Your task to perform on an android device: Clear the shopping cart on bestbuy.com. Image 0: 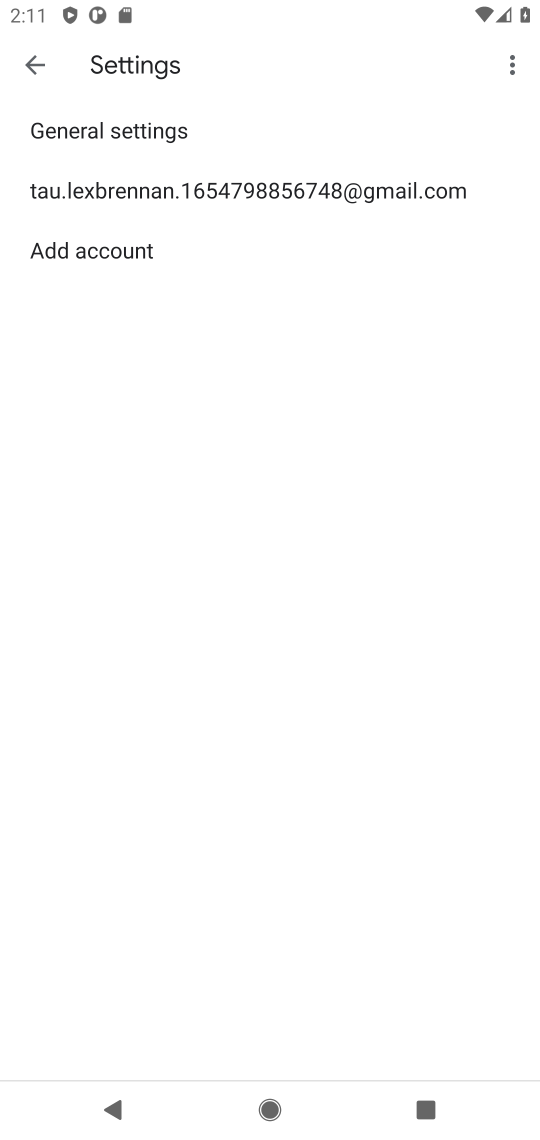
Step 0: press home button
Your task to perform on an android device: Clear the shopping cart on bestbuy.com. Image 1: 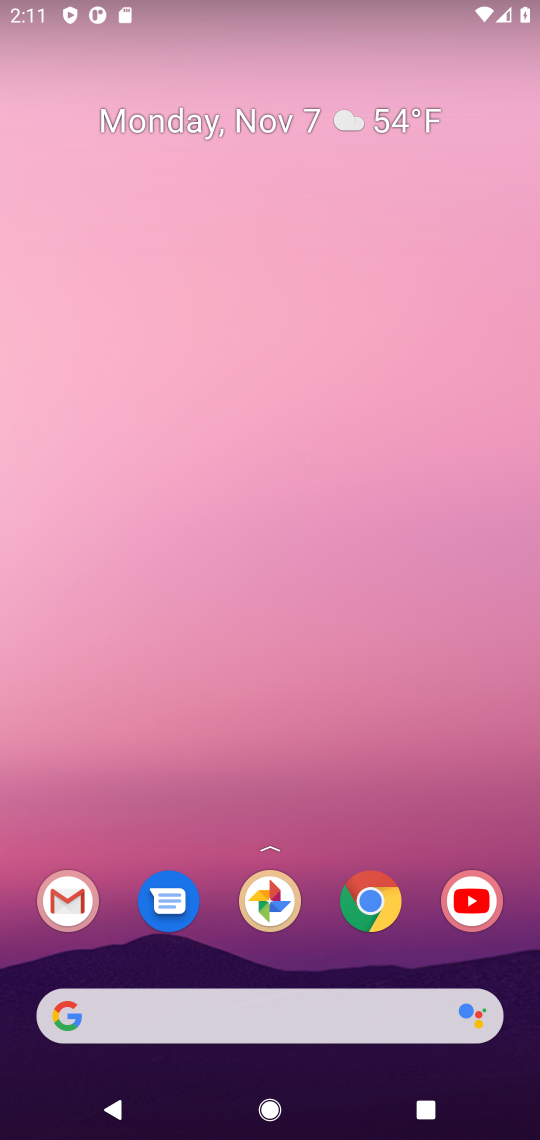
Step 1: click (364, 905)
Your task to perform on an android device: Clear the shopping cart on bestbuy.com. Image 2: 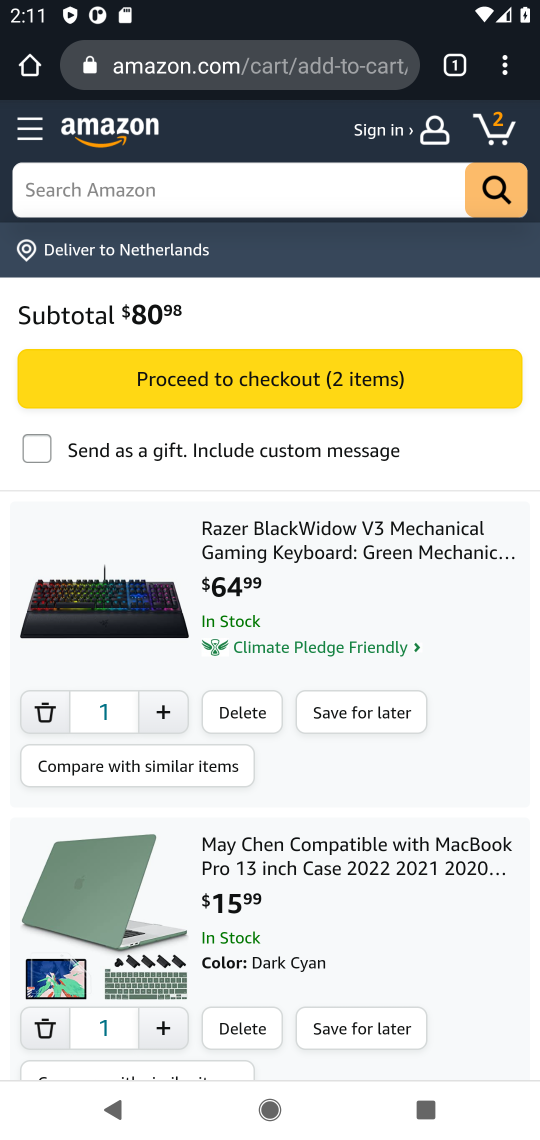
Step 2: click (243, 77)
Your task to perform on an android device: Clear the shopping cart on bestbuy.com. Image 3: 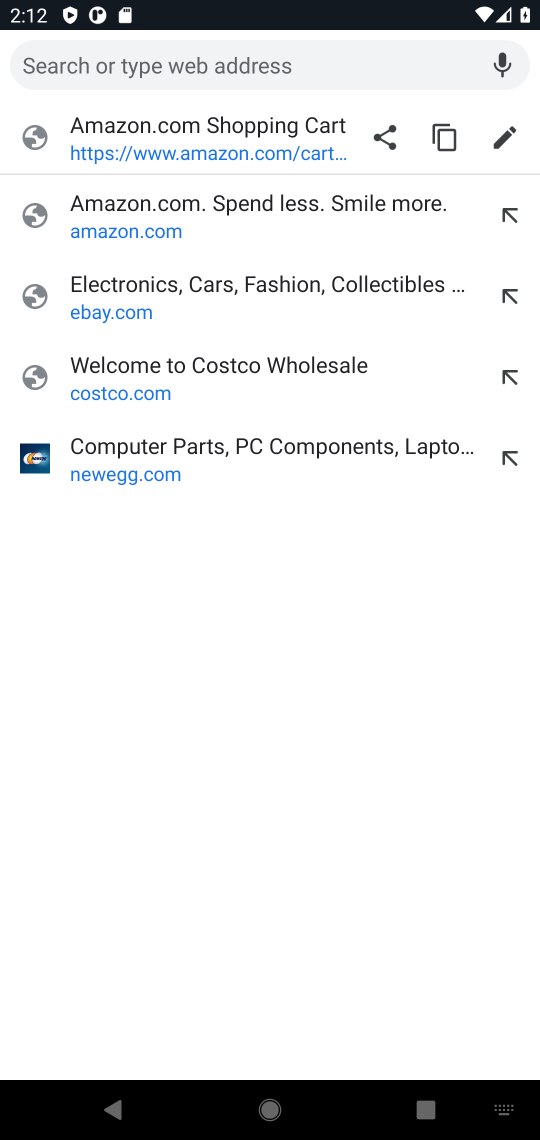
Step 3: type "bestbuy.com"
Your task to perform on an android device: Clear the shopping cart on bestbuy.com. Image 4: 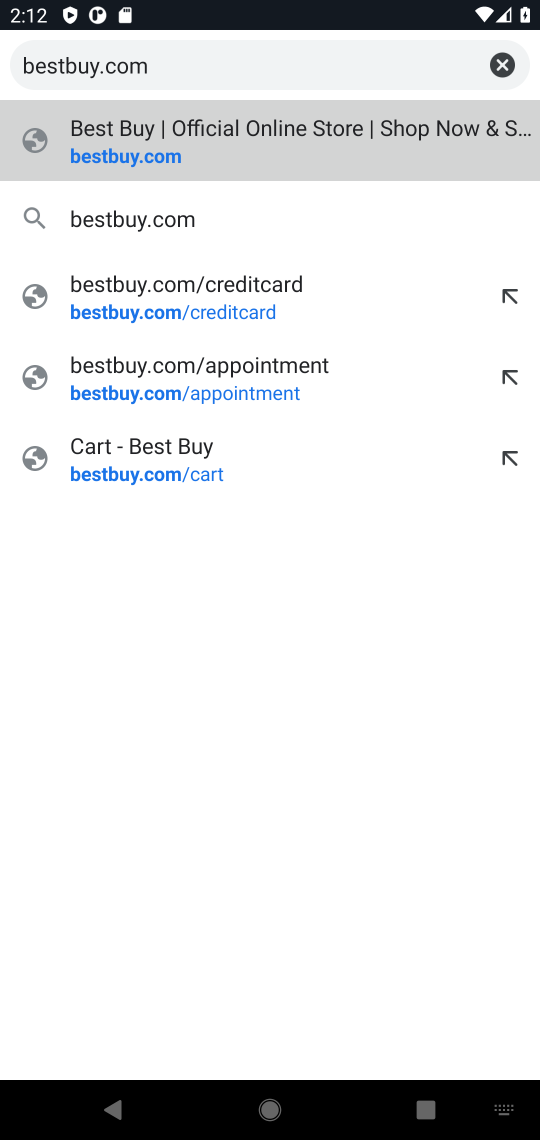
Step 4: click (127, 154)
Your task to perform on an android device: Clear the shopping cart on bestbuy.com. Image 5: 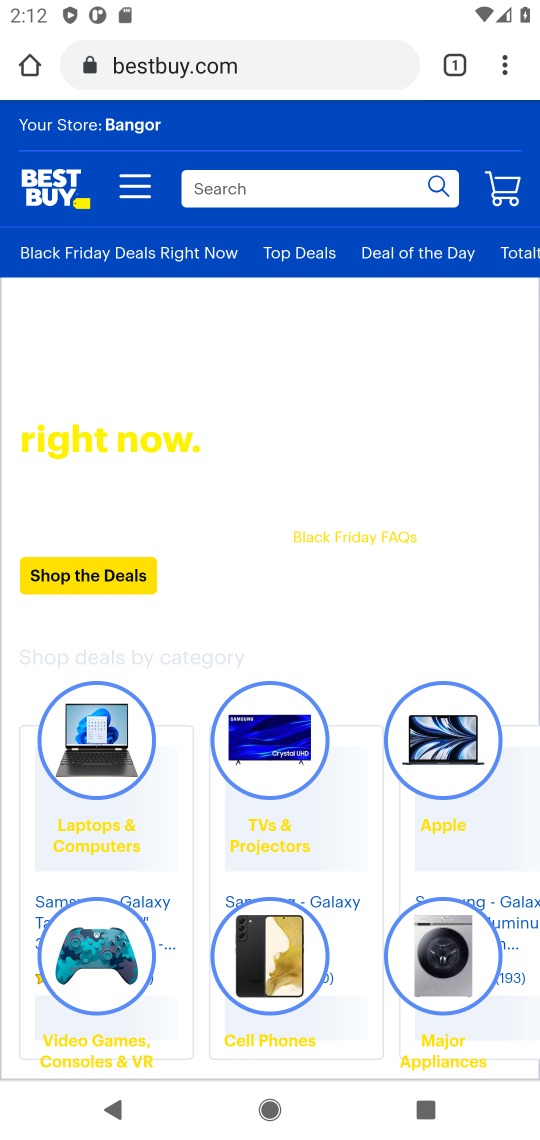
Step 5: click (517, 196)
Your task to perform on an android device: Clear the shopping cart on bestbuy.com. Image 6: 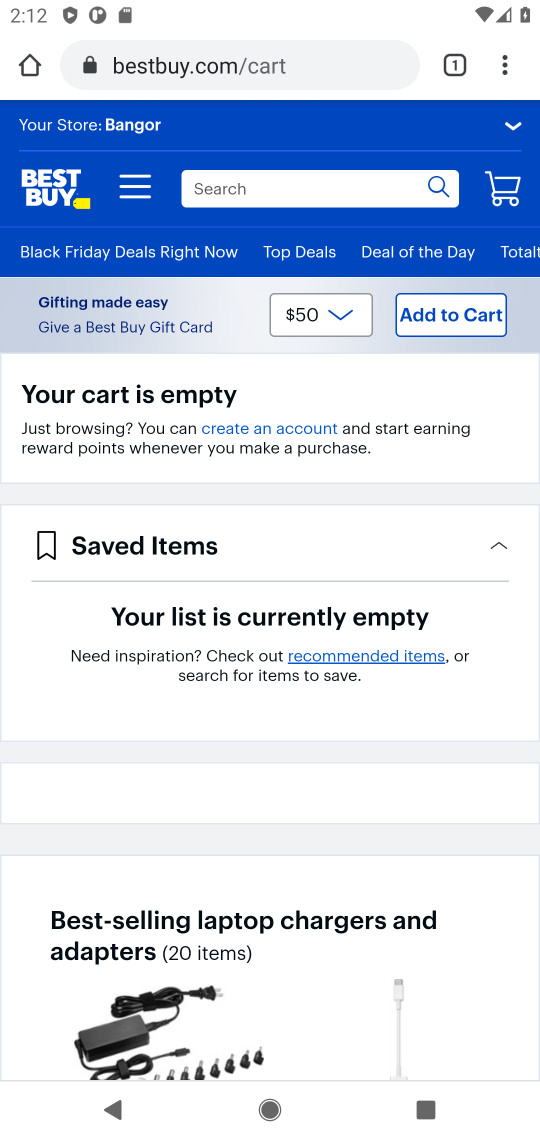
Step 6: task complete